Your task to perform on an android device: toggle location history Image 0: 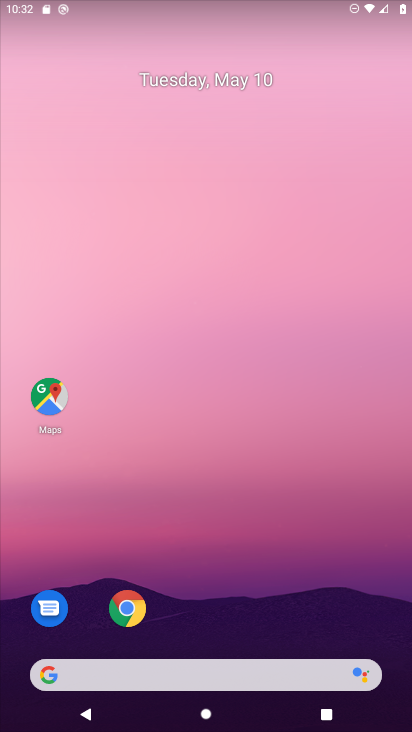
Step 0: drag from (268, 382) to (268, 255)
Your task to perform on an android device: toggle location history Image 1: 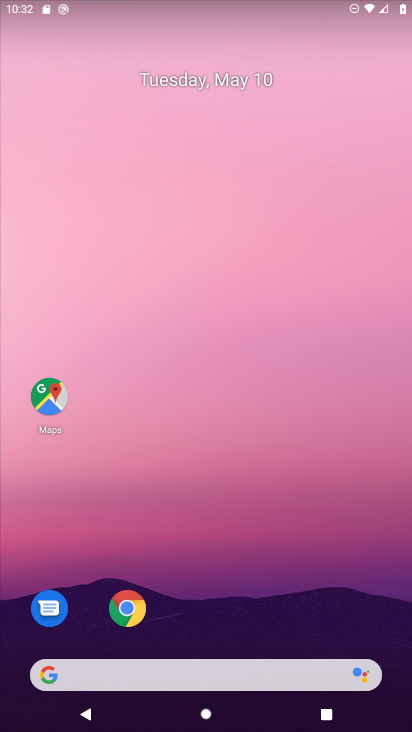
Step 1: drag from (246, 633) to (292, 308)
Your task to perform on an android device: toggle location history Image 2: 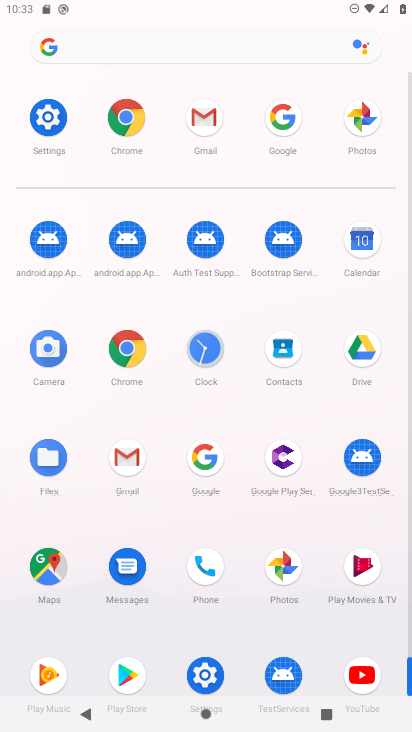
Step 2: click (45, 115)
Your task to perform on an android device: toggle location history Image 3: 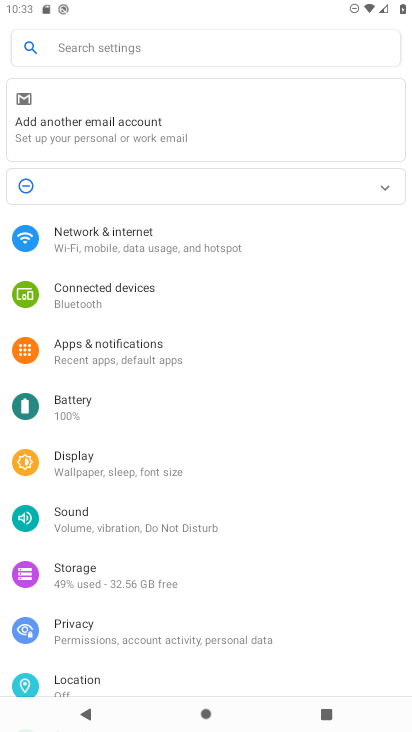
Step 3: drag from (264, 599) to (308, 330)
Your task to perform on an android device: toggle location history Image 4: 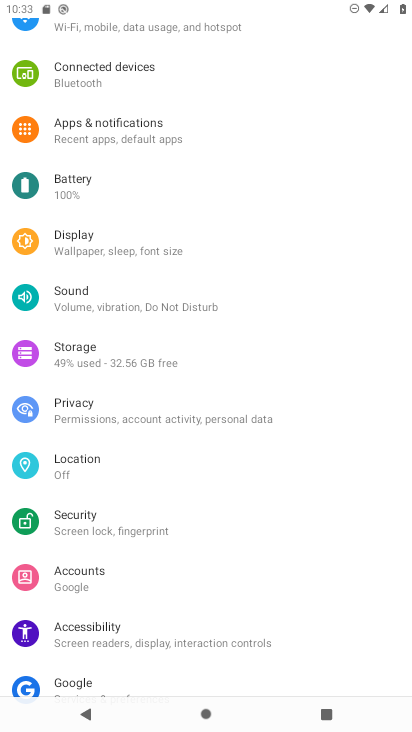
Step 4: click (79, 472)
Your task to perform on an android device: toggle location history Image 5: 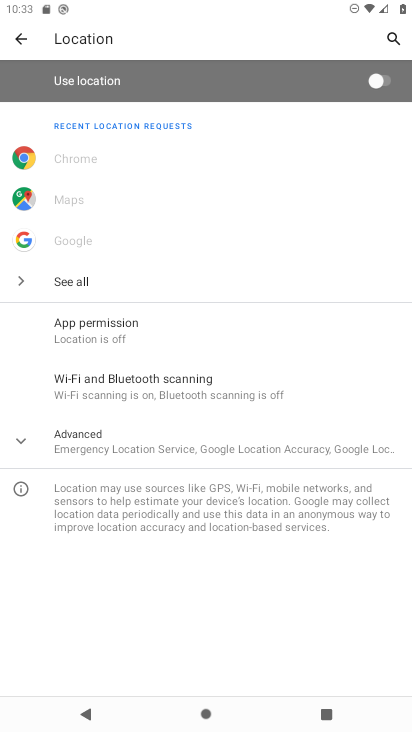
Step 5: click (83, 436)
Your task to perform on an android device: toggle location history Image 6: 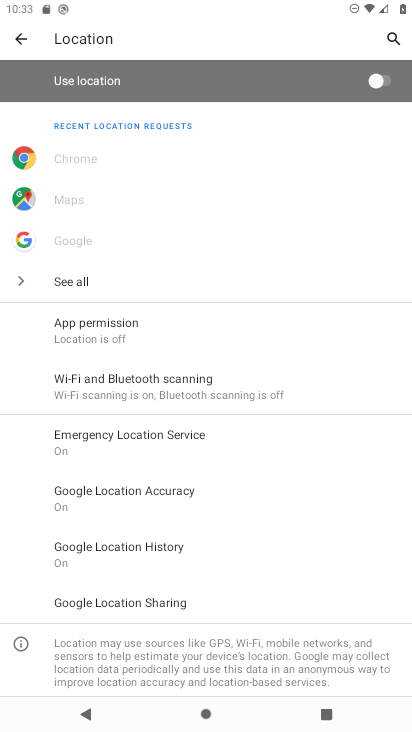
Step 6: click (145, 545)
Your task to perform on an android device: toggle location history Image 7: 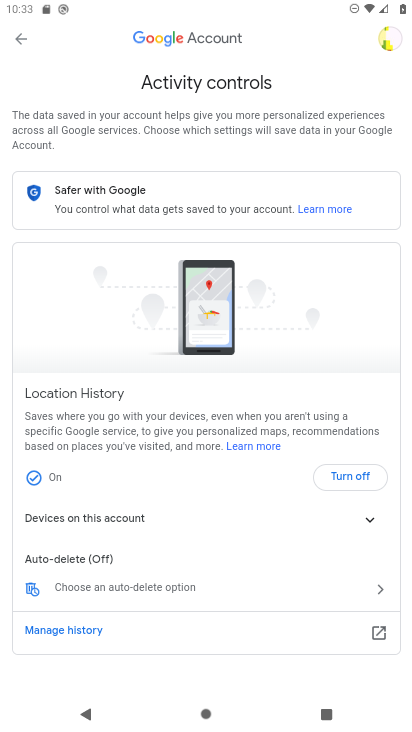
Step 7: click (351, 473)
Your task to perform on an android device: toggle location history Image 8: 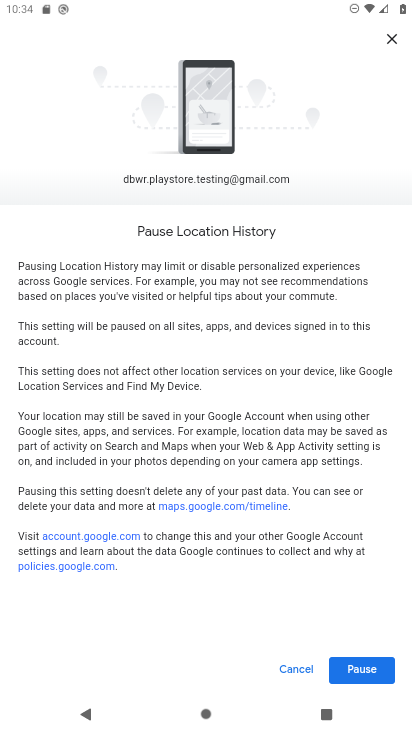
Step 8: task complete